Your task to perform on an android device: Open calendar and show me the fourth week of next month Image 0: 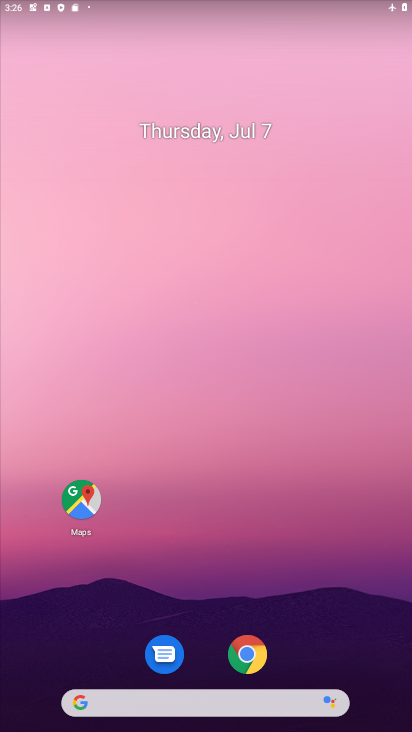
Step 0: drag from (355, 633) to (316, 146)
Your task to perform on an android device: Open calendar and show me the fourth week of next month Image 1: 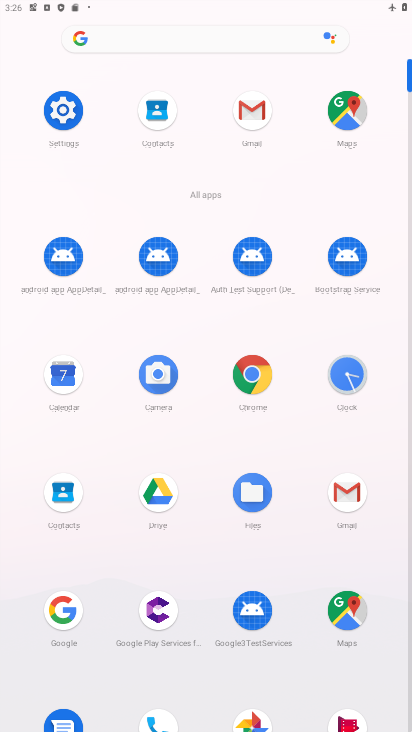
Step 1: click (65, 386)
Your task to perform on an android device: Open calendar and show me the fourth week of next month Image 2: 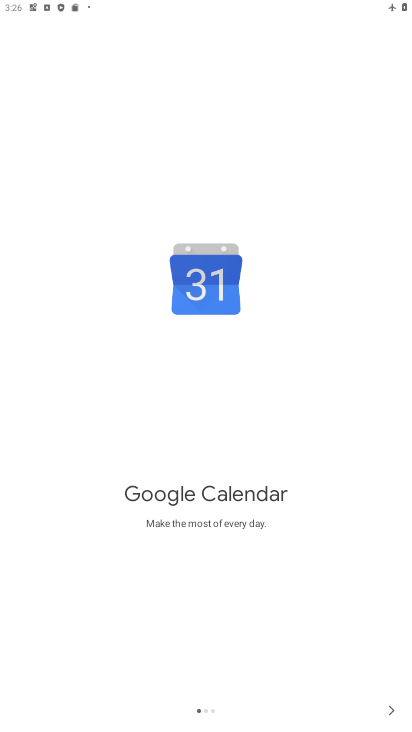
Step 2: click (397, 704)
Your task to perform on an android device: Open calendar and show me the fourth week of next month Image 3: 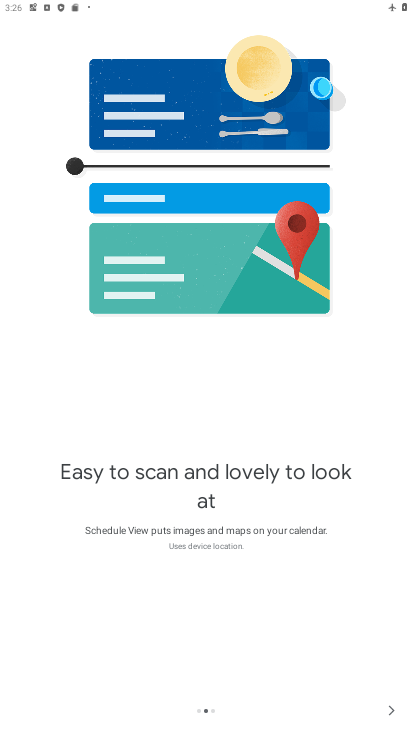
Step 3: click (397, 704)
Your task to perform on an android device: Open calendar and show me the fourth week of next month Image 4: 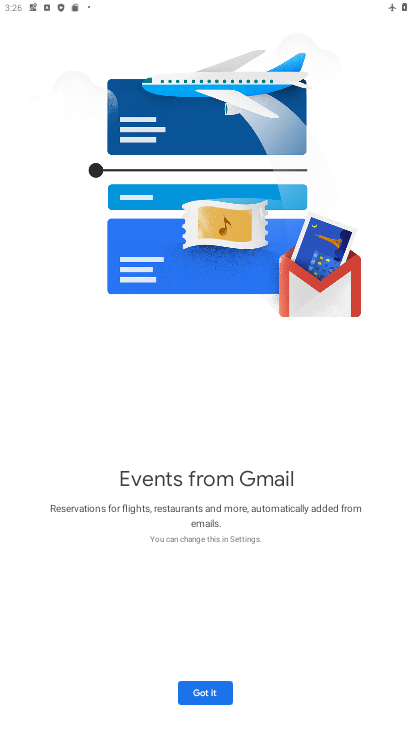
Step 4: click (219, 699)
Your task to perform on an android device: Open calendar and show me the fourth week of next month Image 5: 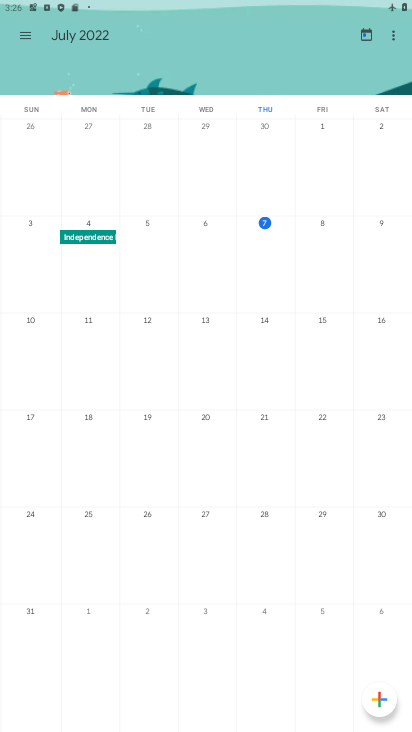
Step 5: click (98, 28)
Your task to perform on an android device: Open calendar and show me the fourth week of next month Image 6: 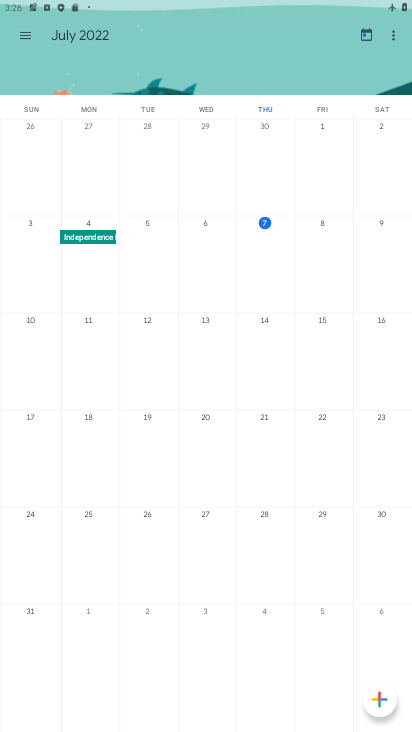
Step 6: click (71, 27)
Your task to perform on an android device: Open calendar and show me the fourth week of next month Image 7: 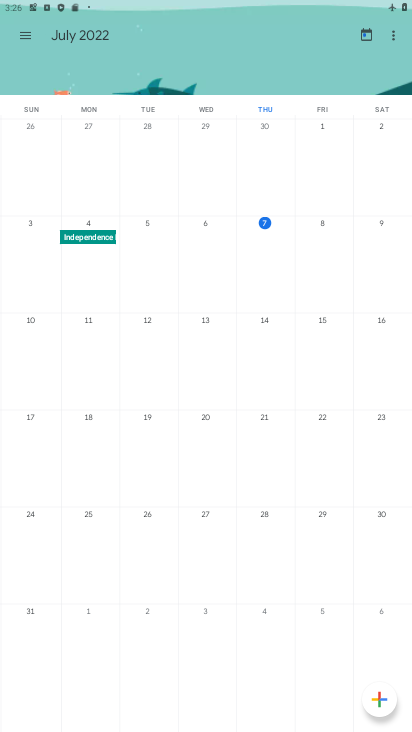
Step 7: click (32, 34)
Your task to perform on an android device: Open calendar and show me the fourth week of next month Image 8: 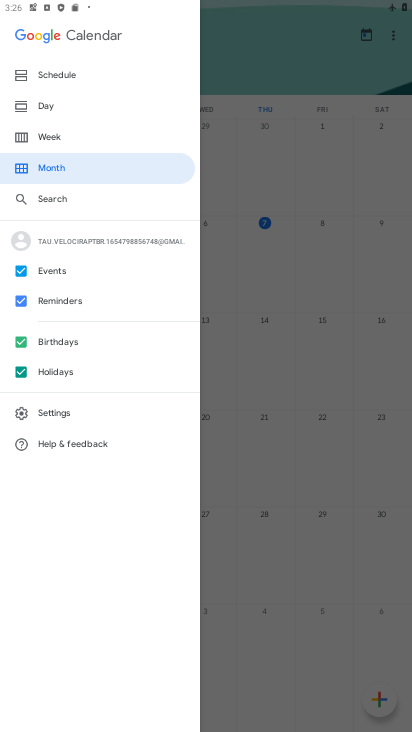
Step 8: click (100, 161)
Your task to perform on an android device: Open calendar and show me the fourth week of next month Image 9: 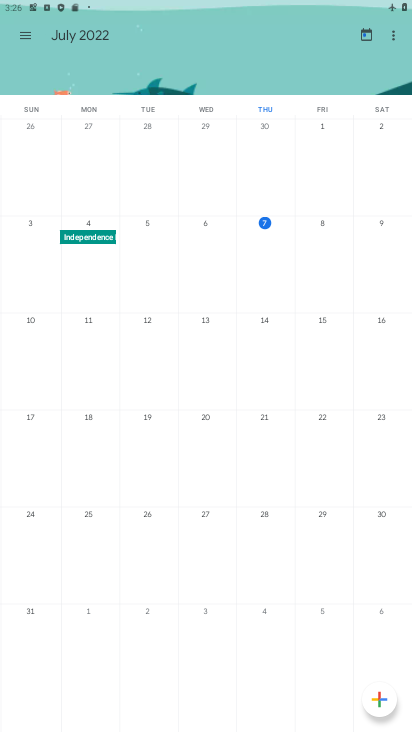
Step 9: drag from (386, 233) to (1, 211)
Your task to perform on an android device: Open calendar and show me the fourth week of next month Image 10: 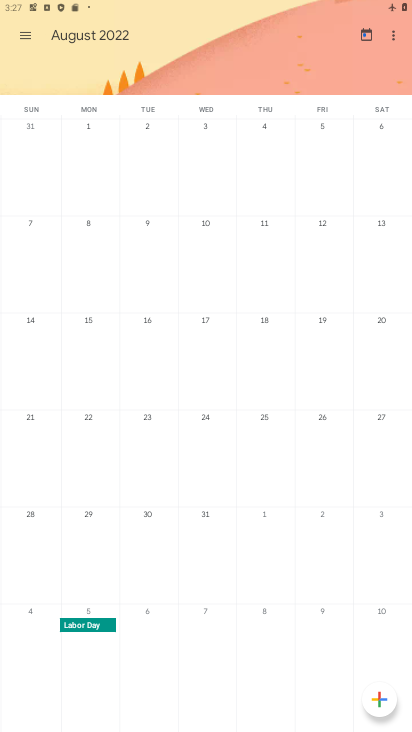
Step 10: click (30, 46)
Your task to perform on an android device: Open calendar and show me the fourth week of next month Image 11: 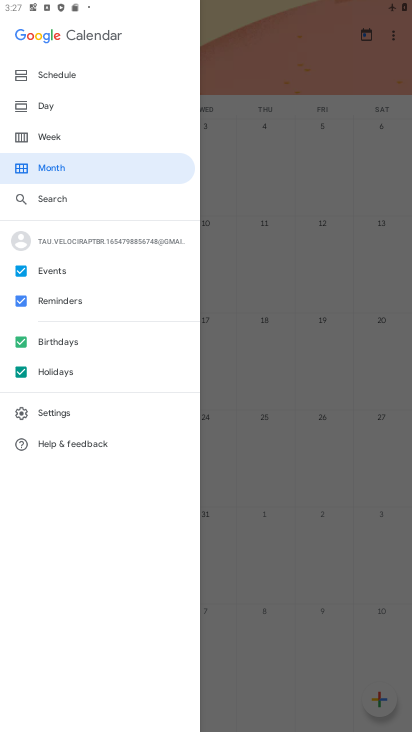
Step 11: click (80, 138)
Your task to perform on an android device: Open calendar and show me the fourth week of next month Image 12: 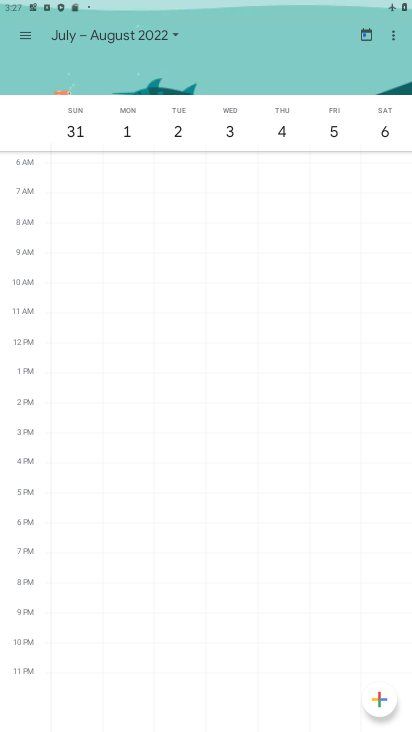
Step 12: task complete